Your task to perform on an android device: Open Google Maps and go to "Timeline" Image 0: 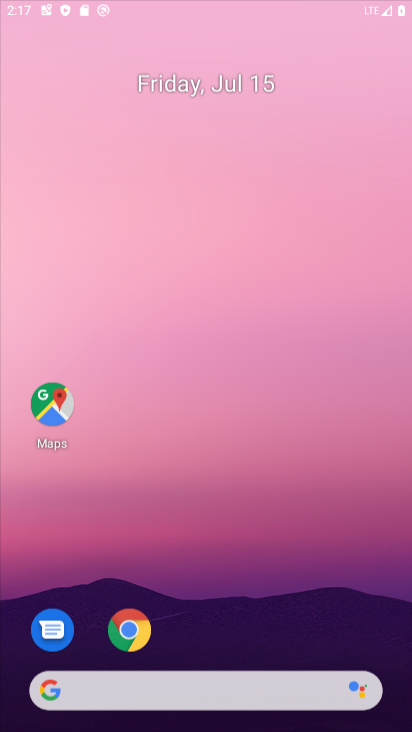
Step 0: press home button
Your task to perform on an android device: Open Google Maps and go to "Timeline" Image 1: 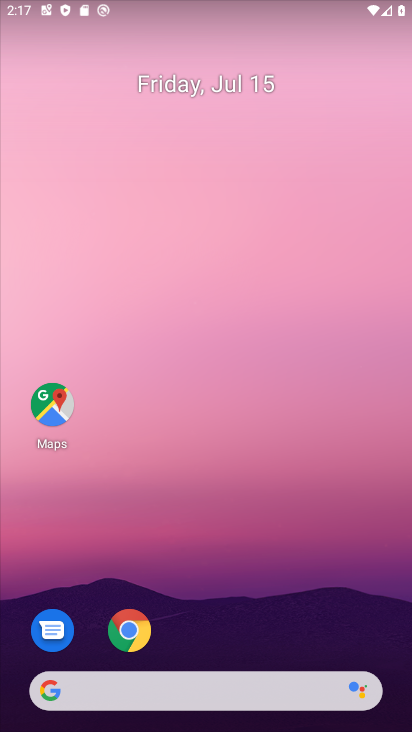
Step 1: click (54, 408)
Your task to perform on an android device: Open Google Maps and go to "Timeline" Image 2: 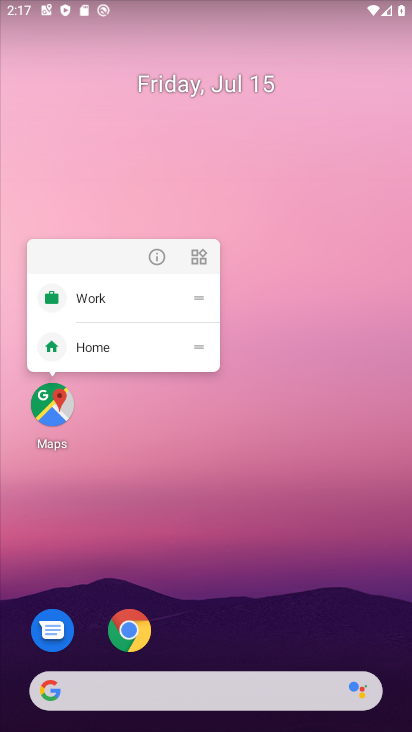
Step 2: click (54, 407)
Your task to perform on an android device: Open Google Maps and go to "Timeline" Image 3: 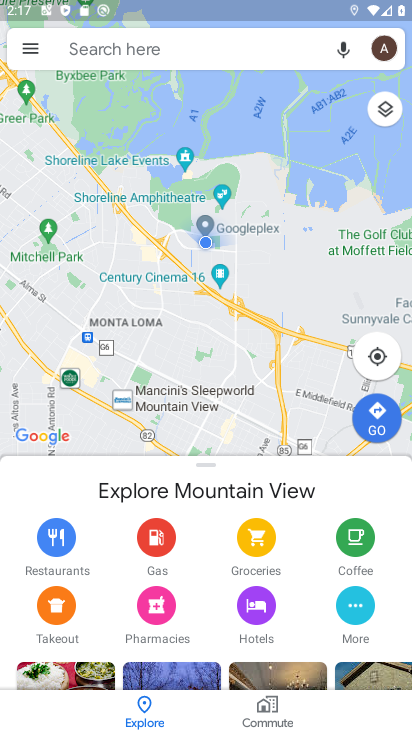
Step 3: click (22, 57)
Your task to perform on an android device: Open Google Maps and go to "Timeline" Image 4: 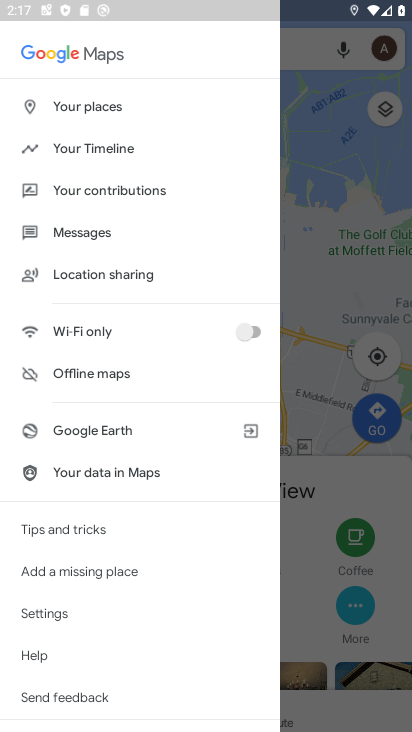
Step 4: click (85, 152)
Your task to perform on an android device: Open Google Maps and go to "Timeline" Image 5: 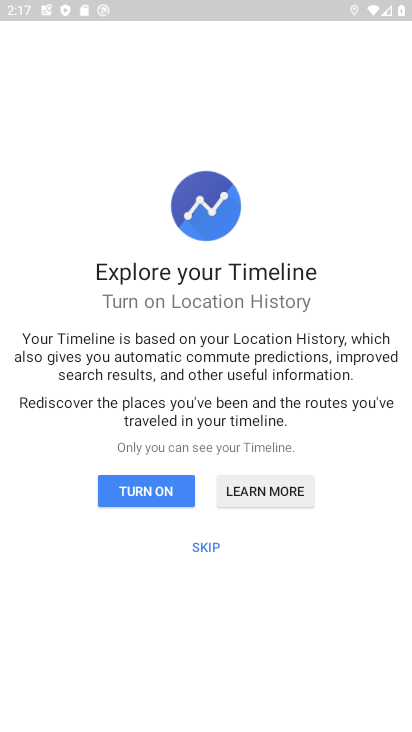
Step 5: click (207, 542)
Your task to perform on an android device: Open Google Maps and go to "Timeline" Image 6: 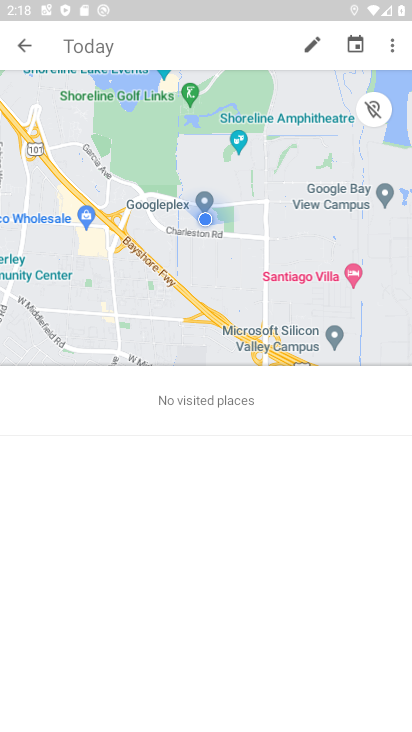
Step 6: task complete